Your task to perform on an android device: check storage Image 0: 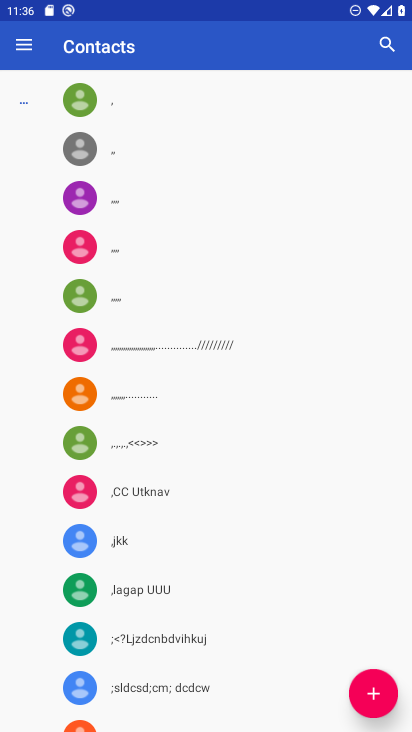
Step 0: press home button
Your task to perform on an android device: check storage Image 1: 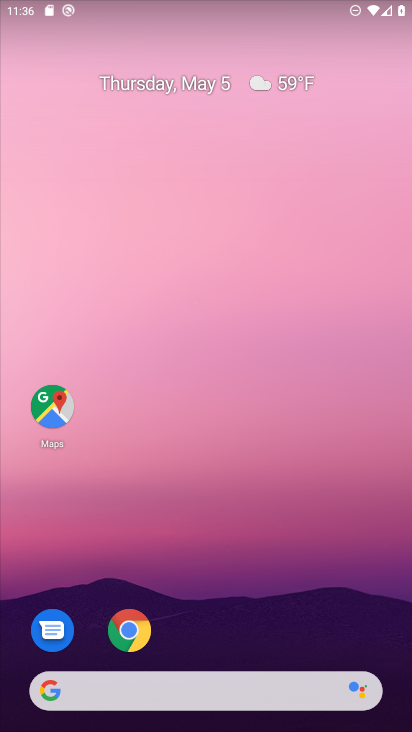
Step 1: drag from (298, 595) to (313, 106)
Your task to perform on an android device: check storage Image 2: 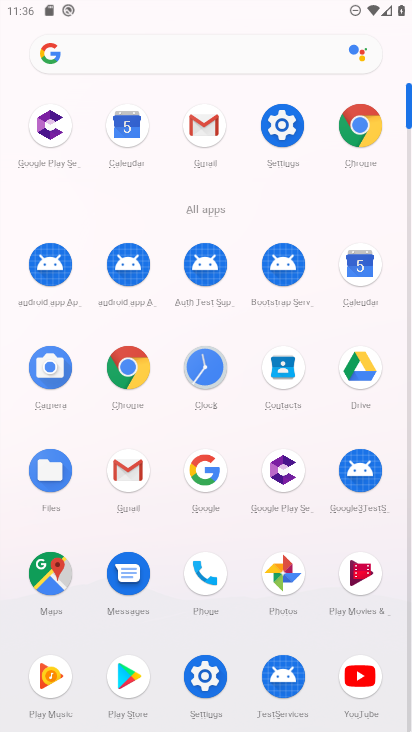
Step 2: click (280, 134)
Your task to perform on an android device: check storage Image 3: 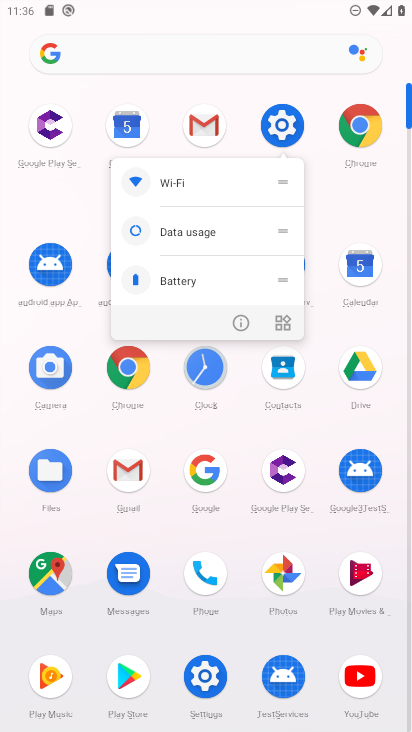
Step 3: click (283, 125)
Your task to perform on an android device: check storage Image 4: 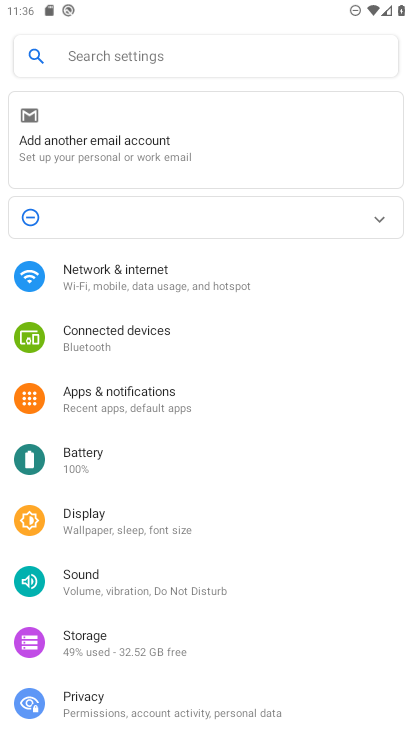
Step 4: click (95, 648)
Your task to perform on an android device: check storage Image 5: 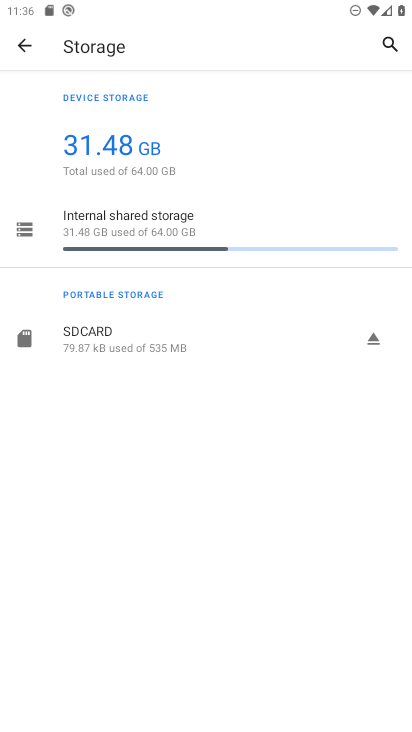
Step 5: task complete